Your task to perform on an android device: turn on location history Image 0: 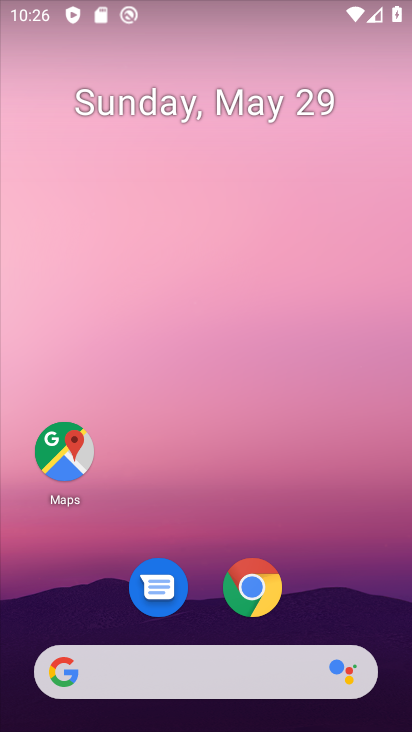
Step 0: drag from (366, 595) to (266, 129)
Your task to perform on an android device: turn on location history Image 1: 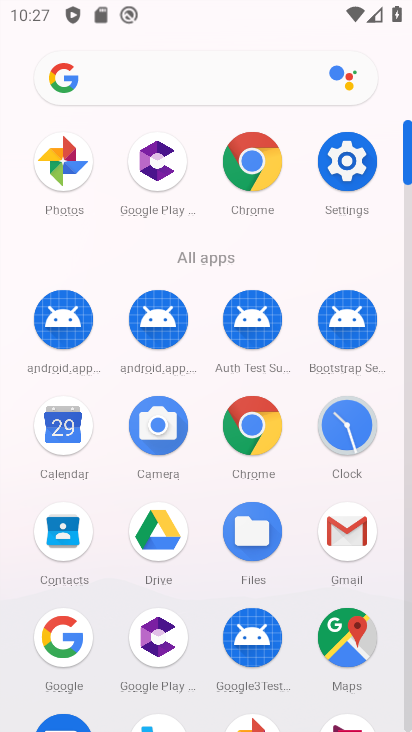
Step 1: click (349, 636)
Your task to perform on an android device: turn on location history Image 2: 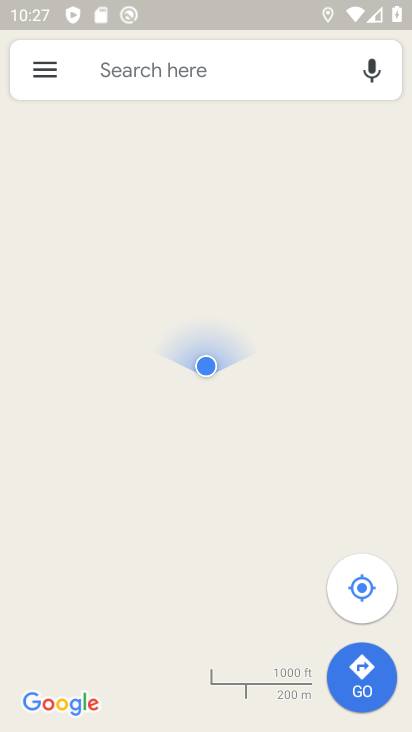
Step 2: click (48, 75)
Your task to perform on an android device: turn on location history Image 3: 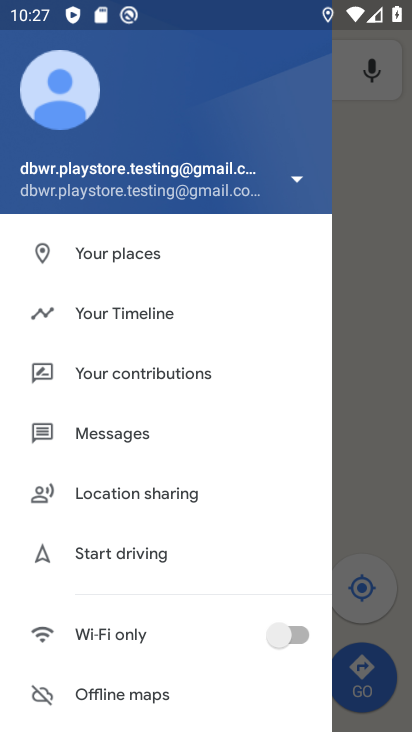
Step 3: click (157, 311)
Your task to perform on an android device: turn on location history Image 4: 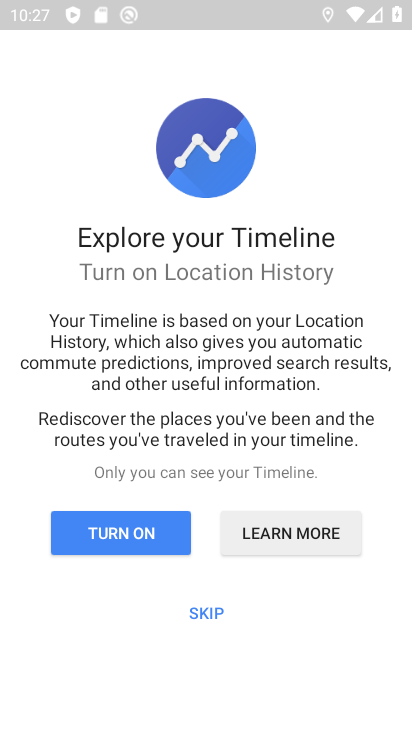
Step 4: click (211, 611)
Your task to perform on an android device: turn on location history Image 5: 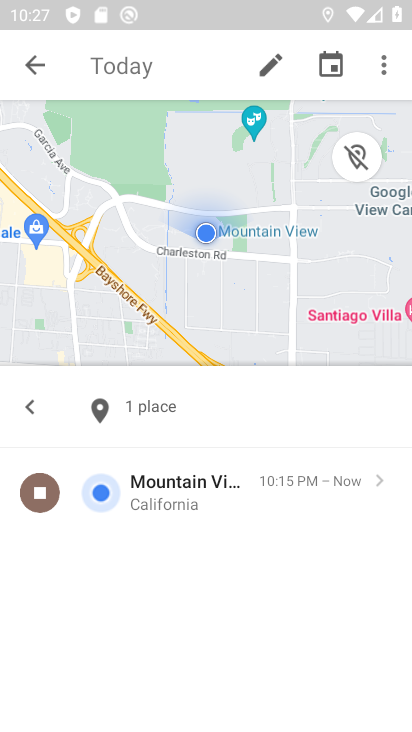
Step 5: click (389, 74)
Your task to perform on an android device: turn on location history Image 6: 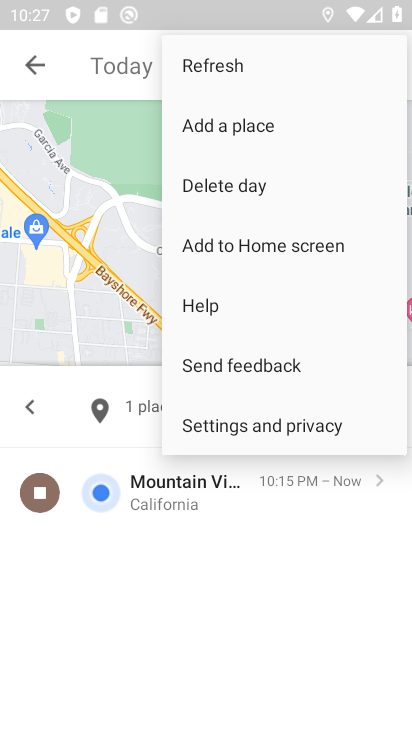
Step 6: click (286, 419)
Your task to perform on an android device: turn on location history Image 7: 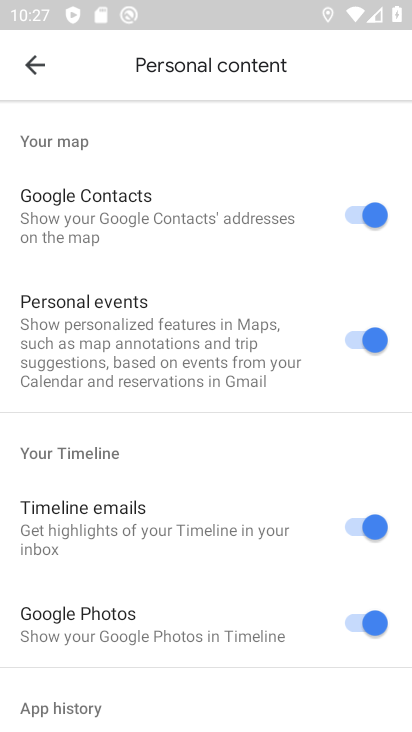
Step 7: drag from (225, 697) to (191, 147)
Your task to perform on an android device: turn on location history Image 8: 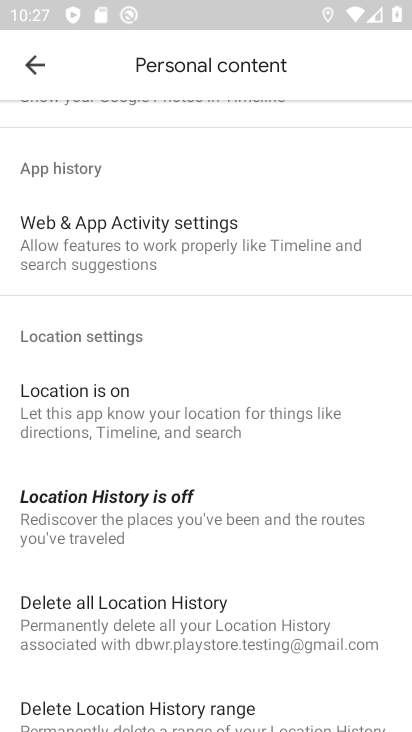
Step 8: click (220, 531)
Your task to perform on an android device: turn on location history Image 9: 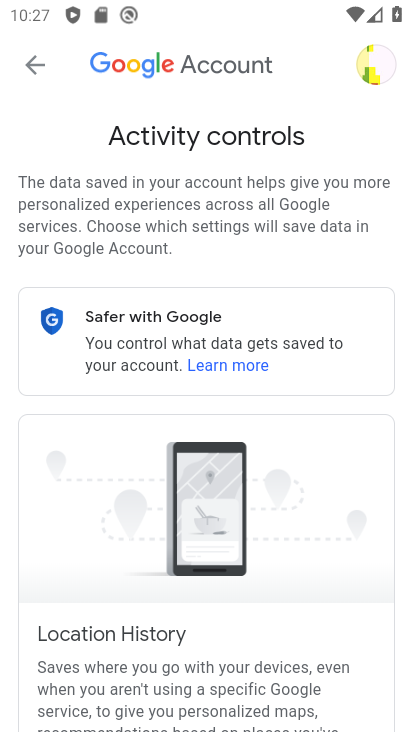
Step 9: drag from (298, 650) to (237, 250)
Your task to perform on an android device: turn on location history Image 10: 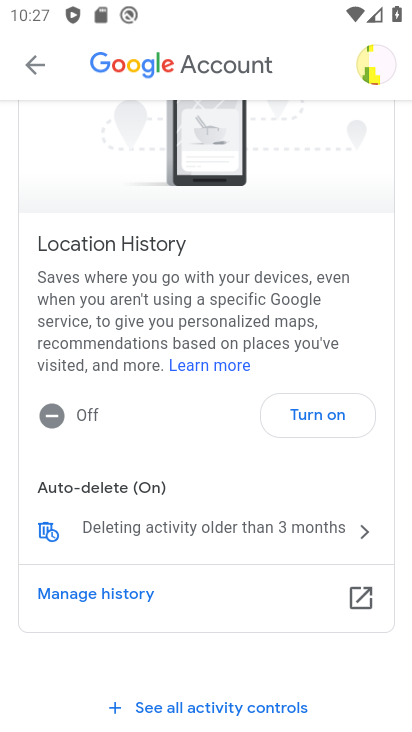
Step 10: click (349, 410)
Your task to perform on an android device: turn on location history Image 11: 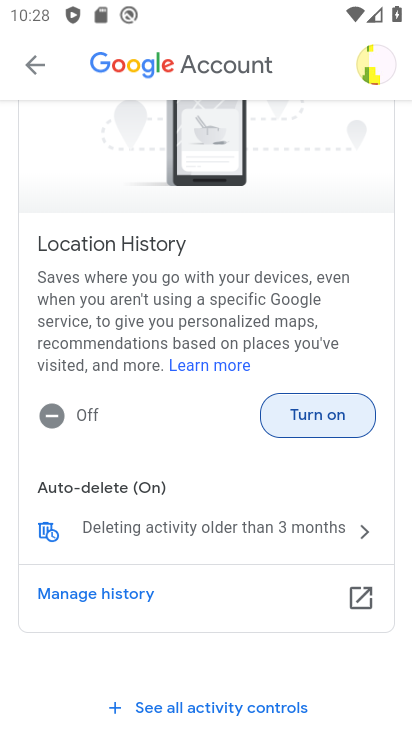
Step 11: click (300, 413)
Your task to perform on an android device: turn on location history Image 12: 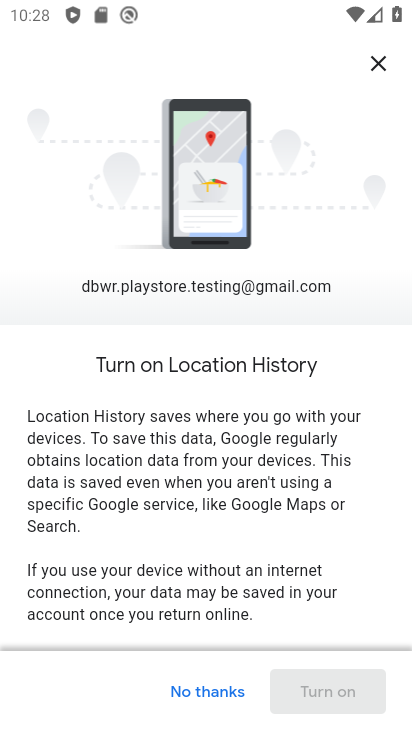
Step 12: drag from (280, 542) to (234, 112)
Your task to perform on an android device: turn on location history Image 13: 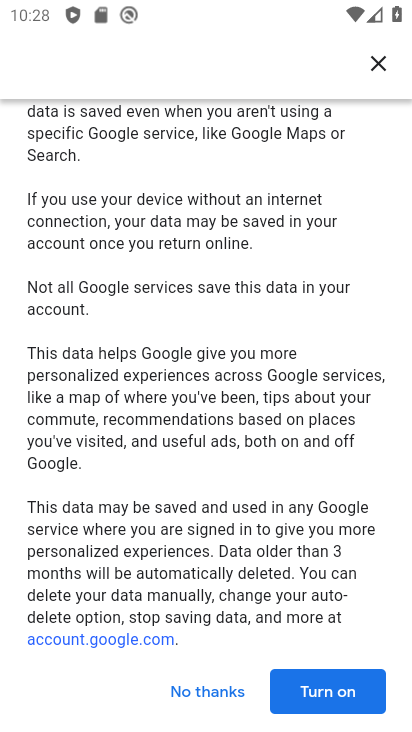
Step 13: click (341, 702)
Your task to perform on an android device: turn on location history Image 14: 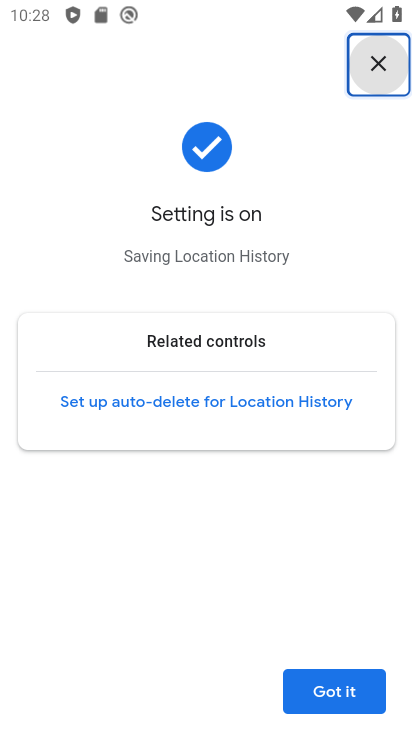
Step 14: click (340, 702)
Your task to perform on an android device: turn on location history Image 15: 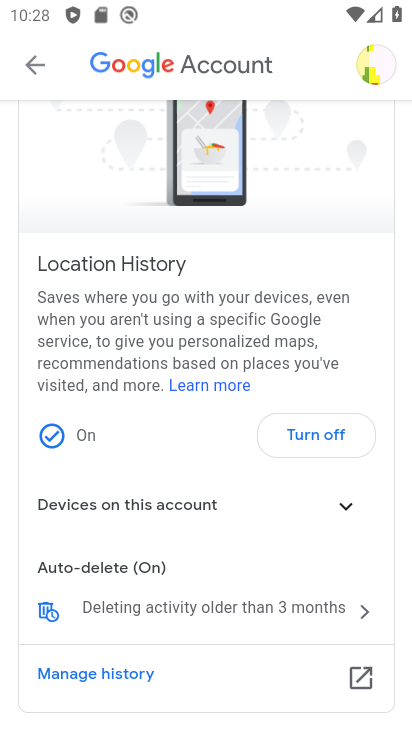
Step 15: task complete